Your task to perform on an android device: check data usage Image 0: 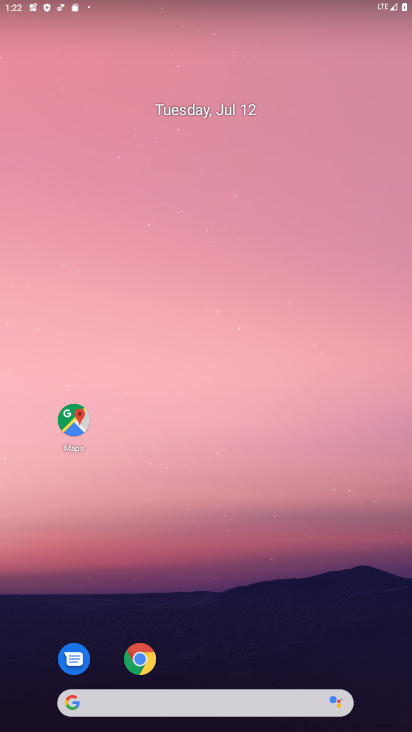
Step 0: drag from (217, 507) to (206, 167)
Your task to perform on an android device: check data usage Image 1: 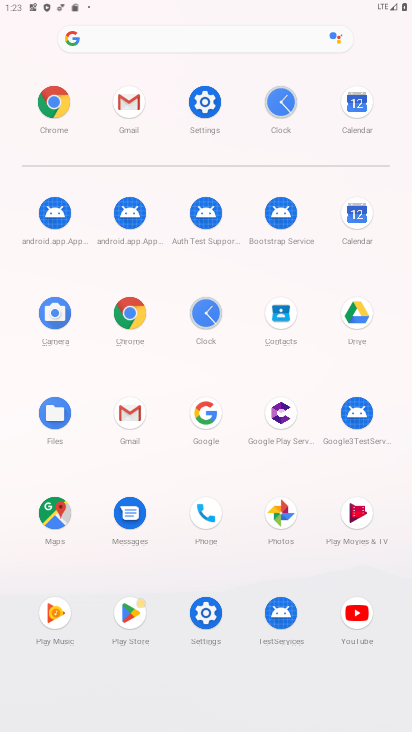
Step 1: click (203, 102)
Your task to perform on an android device: check data usage Image 2: 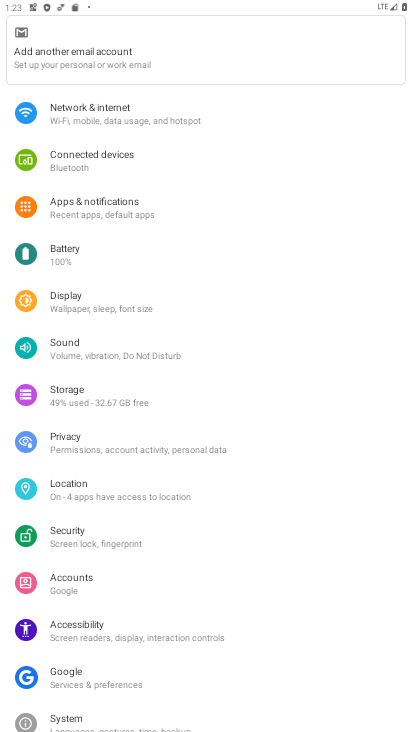
Step 2: click (91, 110)
Your task to perform on an android device: check data usage Image 3: 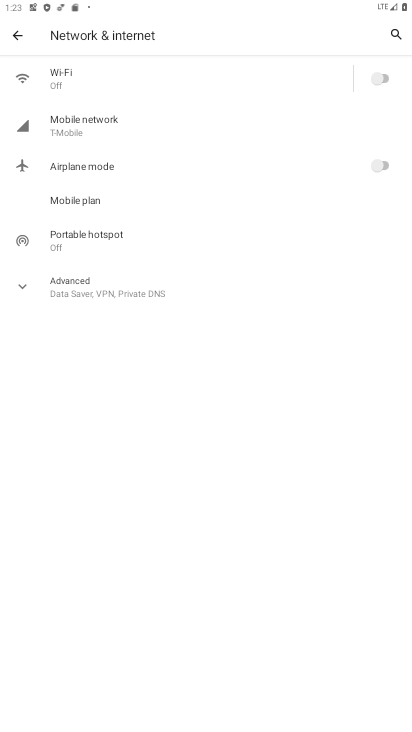
Step 3: click (79, 196)
Your task to perform on an android device: check data usage Image 4: 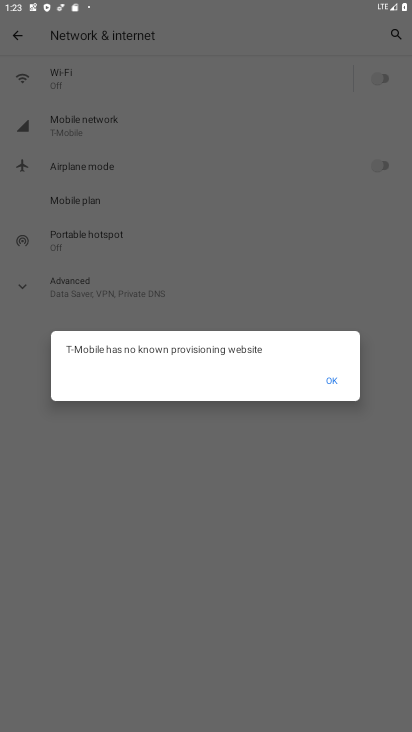
Step 4: click (329, 379)
Your task to perform on an android device: check data usage Image 5: 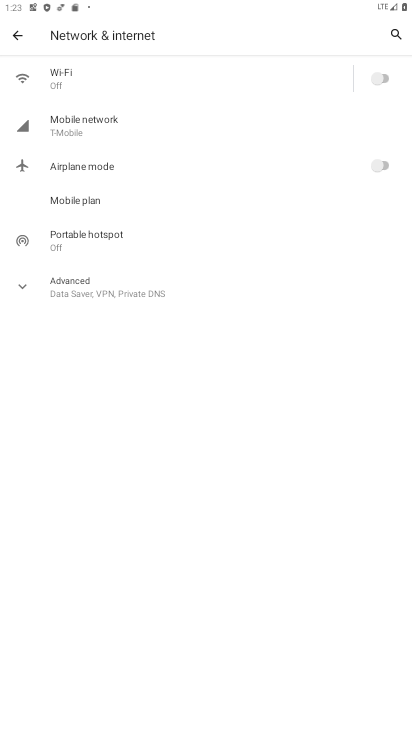
Step 5: task complete